Your task to perform on an android device: delete a single message in the gmail app Image 0: 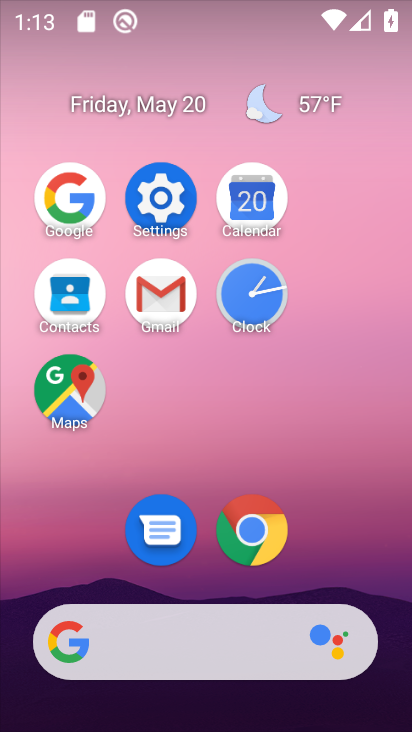
Step 0: click (156, 301)
Your task to perform on an android device: delete a single message in the gmail app Image 1: 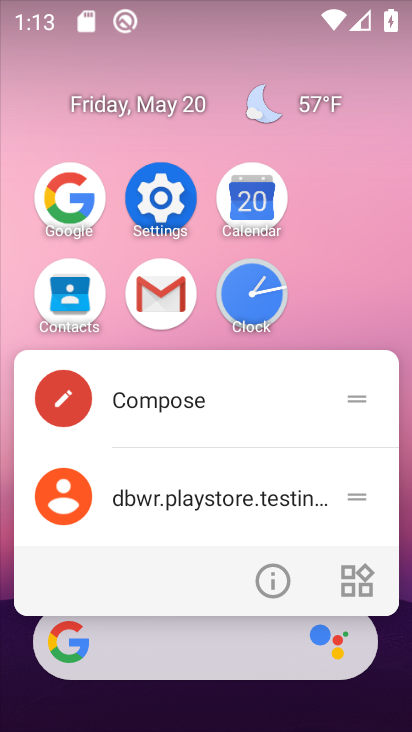
Step 1: click (173, 275)
Your task to perform on an android device: delete a single message in the gmail app Image 2: 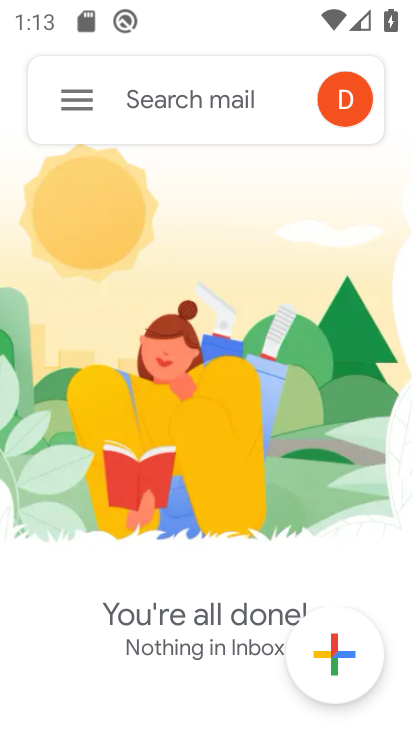
Step 2: click (84, 109)
Your task to perform on an android device: delete a single message in the gmail app Image 3: 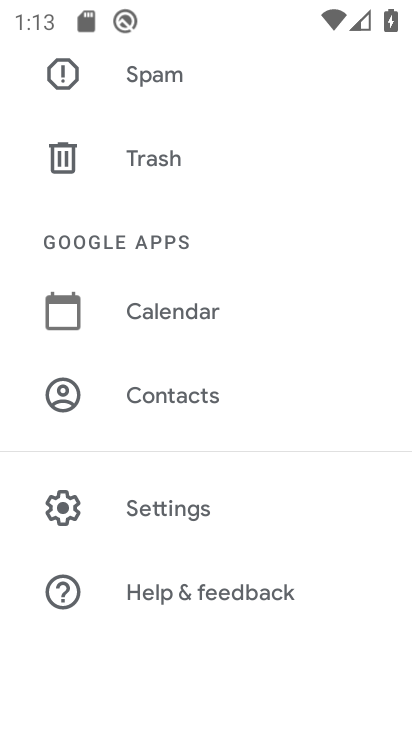
Step 3: drag from (266, 464) to (255, 106)
Your task to perform on an android device: delete a single message in the gmail app Image 4: 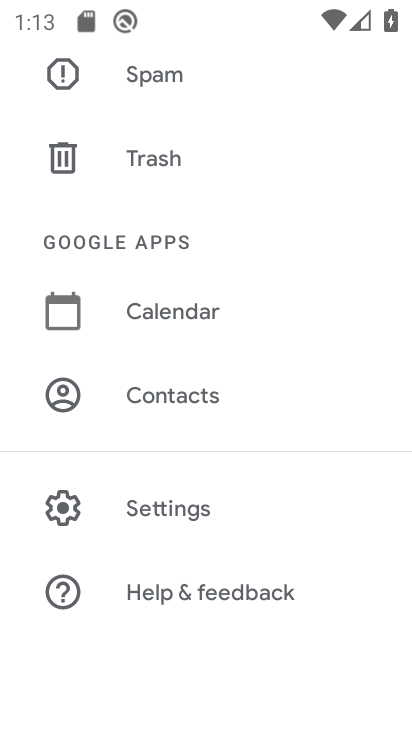
Step 4: drag from (274, 198) to (281, 611)
Your task to perform on an android device: delete a single message in the gmail app Image 5: 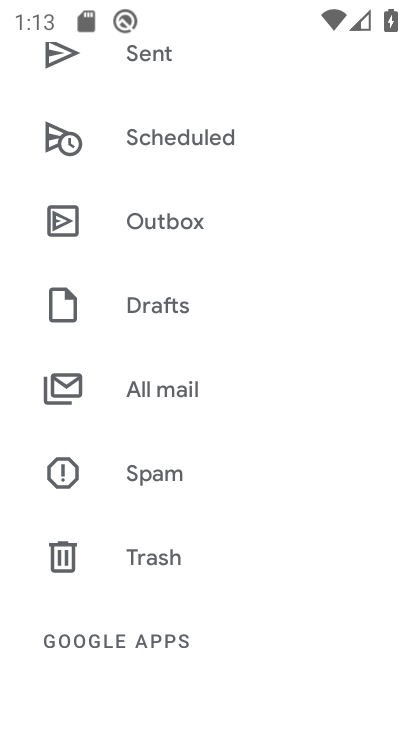
Step 5: click (176, 385)
Your task to perform on an android device: delete a single message in the gmail app Image 6: 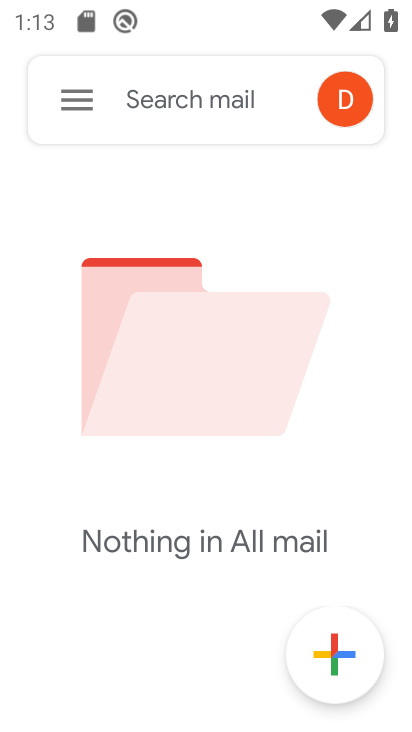
Step 6: task complete